Your task to perform on an android device: Open Youtube and go to the subscriptions tab Image 0: 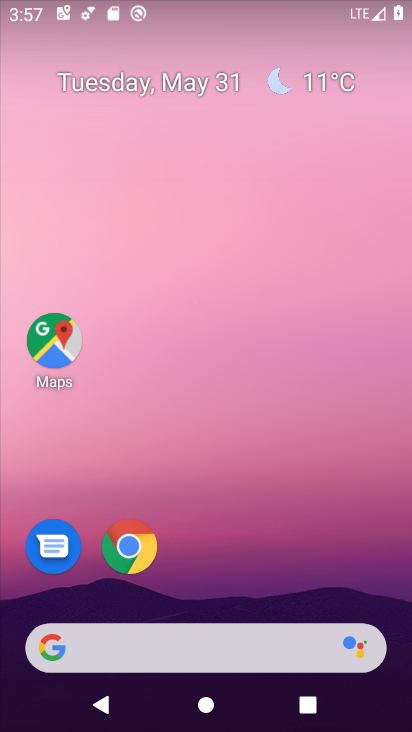
Step 0: drag from (276, 537) to (253, 52)
Your task to perform on an android device: Open Youtube and go to the subscriptions tab Image 1: 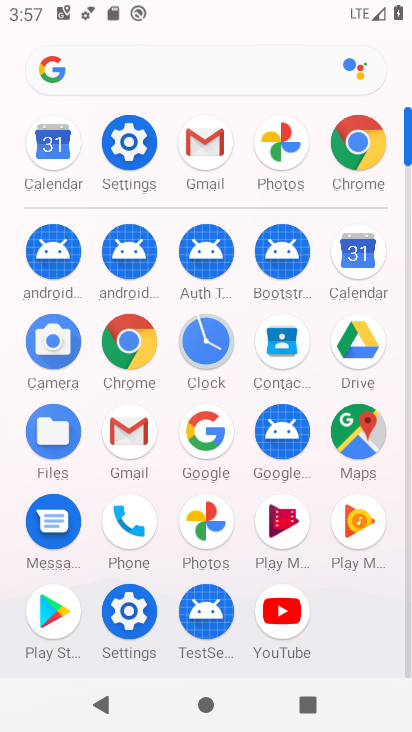
Step 1: click (279, 606)
Your task to perform on an android device: Open Youtube and go to the subscriptions tab Image 2: 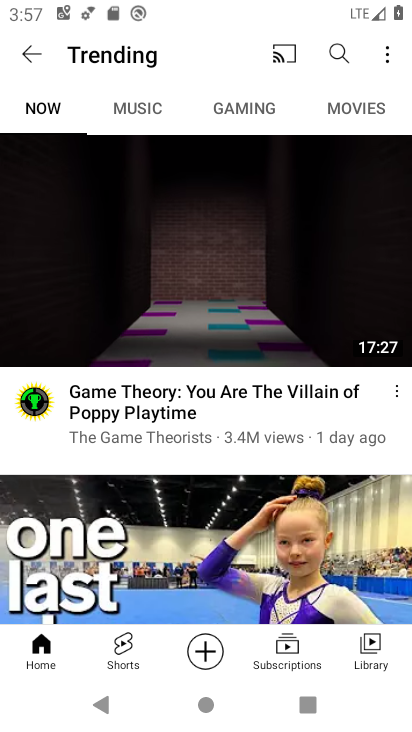
Step 2: click (288, 651)
Your task to perform on an android device: Open Youtube and go to the subscriptions tab Image 3: 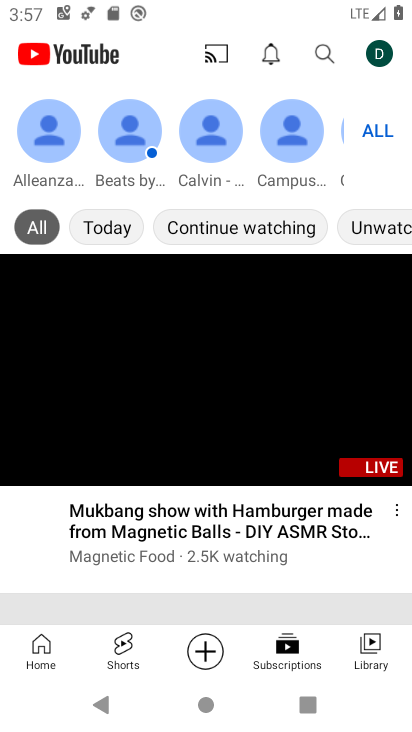
Step 3: task complete